Your task to perform on an android device: check storage Image 0: 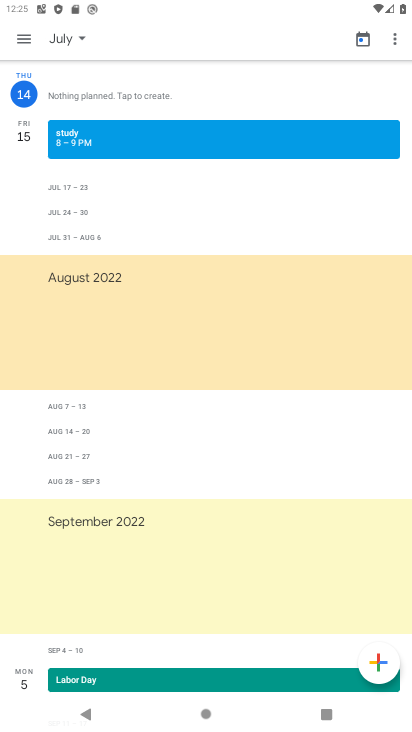
Step 0: press home button
Your task to perform on an android device: check storage Image 1: 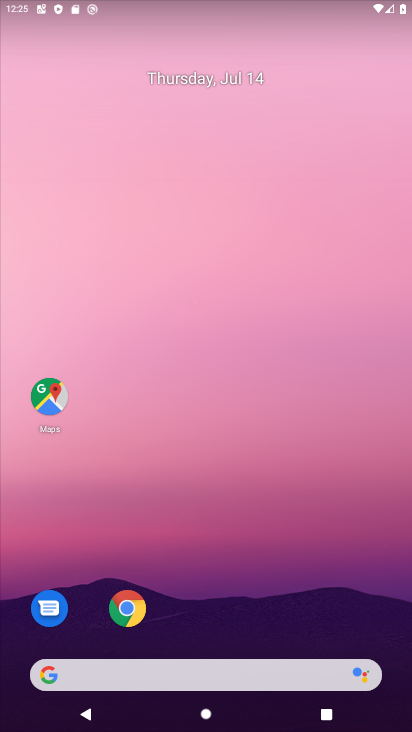
Step 1: drag from (0, 702) to (265, 115)
Your task to perform on an android device: check storage Image 2: 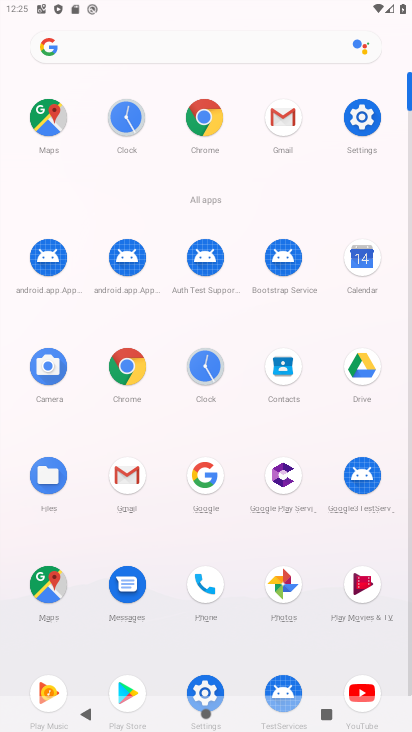
Step 2: click (378, 116)
Your task to perform on an android device: check storage Image 3: 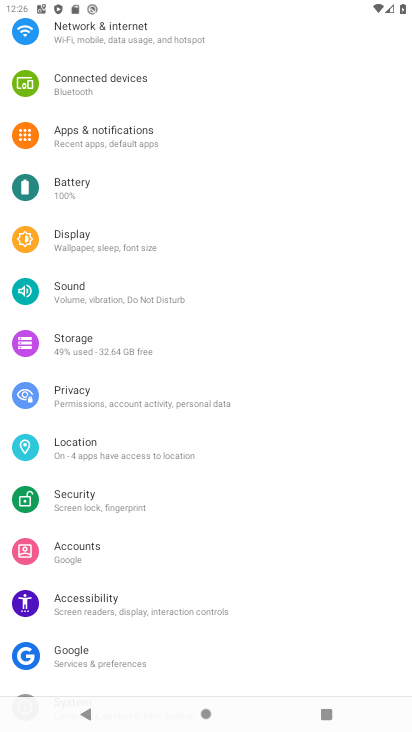
Step 3: task complete